Your task to perform on an android device: turn off improve location accuracy Image 0: 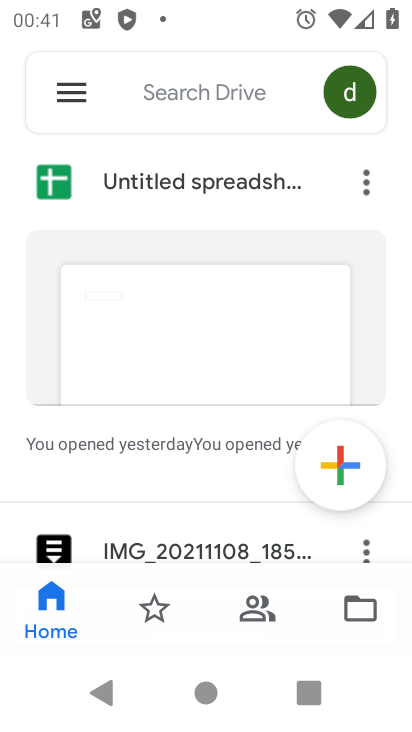
Step 0: press home button
Your task to perform on an android device: turn off improve location accuracy Image 1: 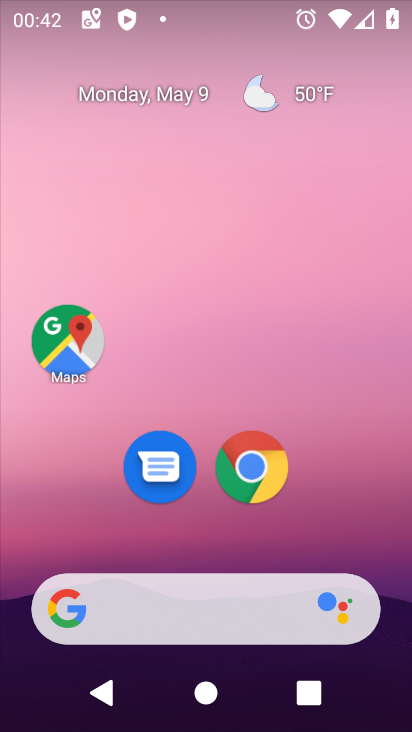
Step 1: drag from (205, 548) to (201, 33)
Your task to perform on an android device: turn off improve location accuracy Image 2: 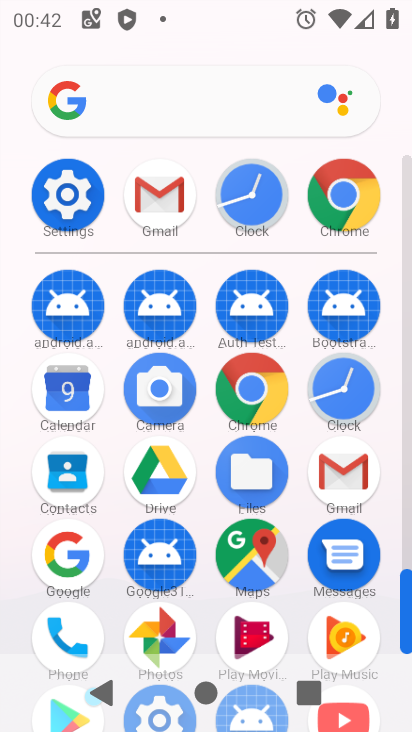
Step 2: click (63, 189)
Your task to perform on an android device: turn off improve location accuracy Image 3: 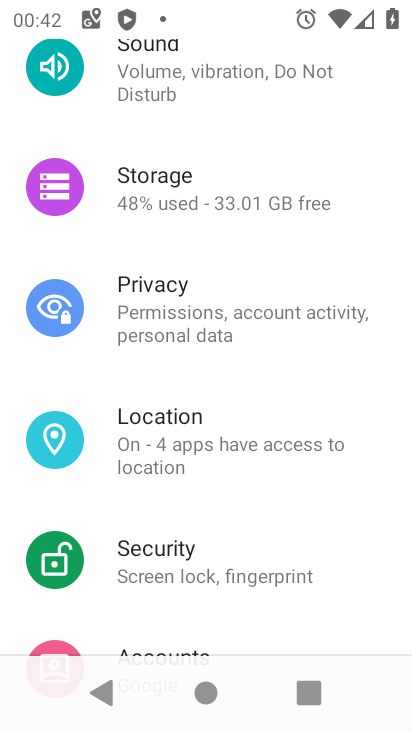
Step 3: click (200, 431)
Your task to perform on an android device: turn off improve location accuracy Image 4: 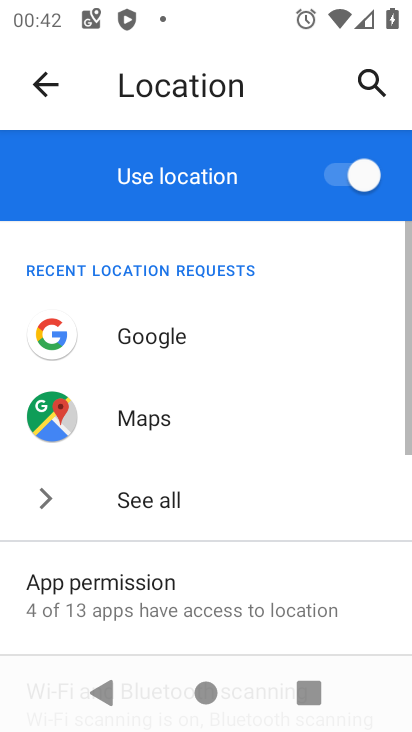
Step 4: drag from (209, 568) to (266, 147)
Your task to perform on an android device: turn off improve location accuracy Image 5: 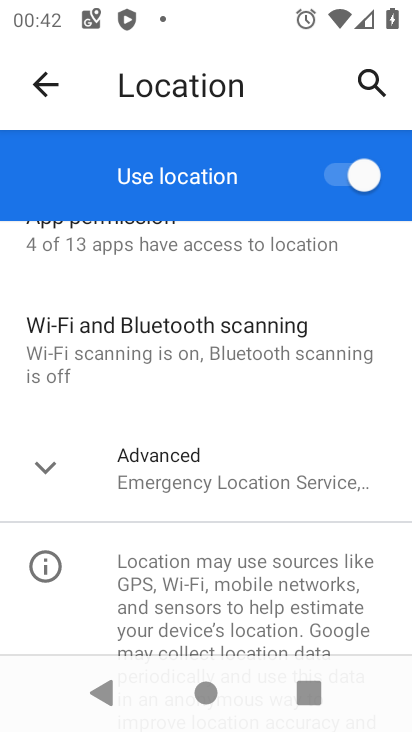
Step 5: click (42, 460)
Your task to perform on an android device: turn off improve location accuracy Image 6: 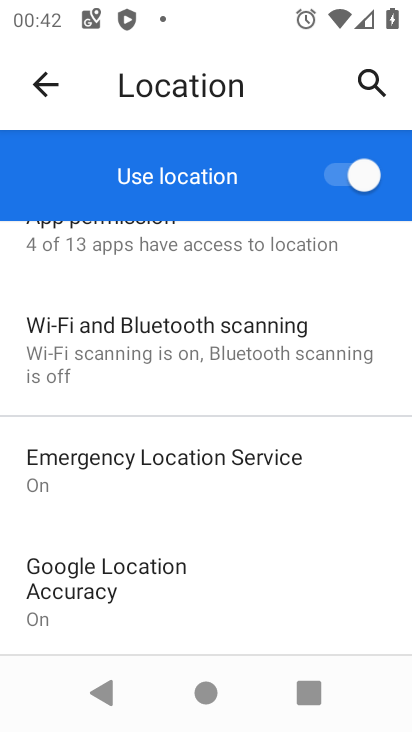
Step 6: click (89, 615)
Your task to perform on an android device: turn off improve location accuracy Image 7: 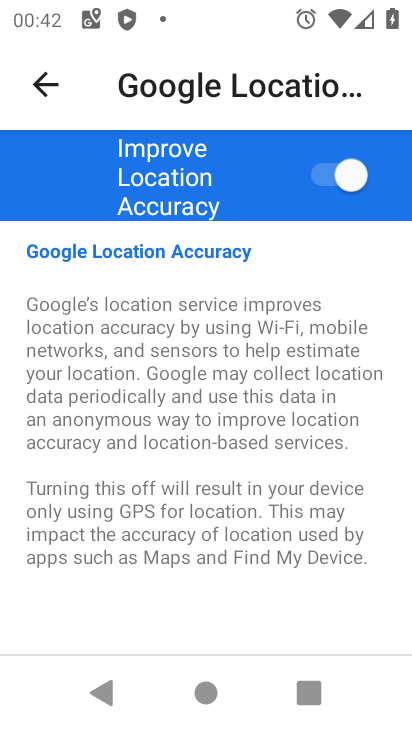
Step 7: click (326, 168)
Your task to perform on an android device: turn off improve location accuracy Image 8: 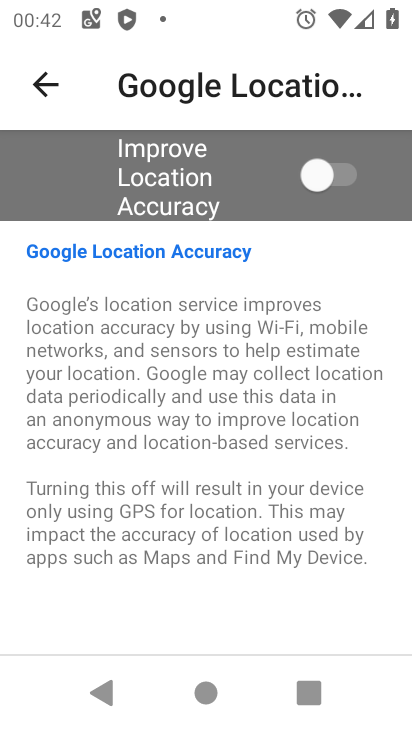
Step 8: task complete